Your task to perform on an android device: toggle improve location accuracy Image 0: 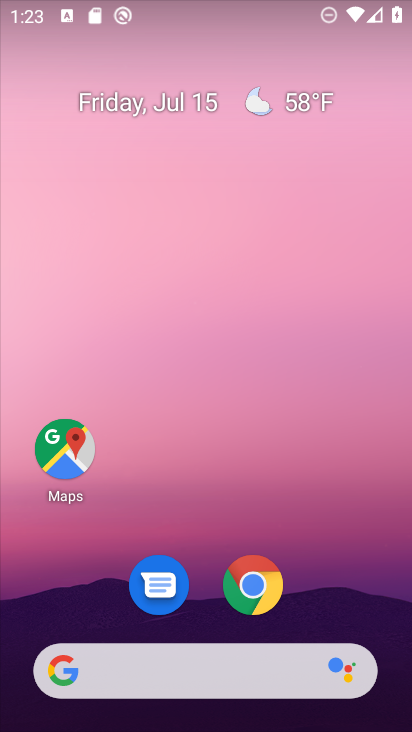
Step 0: drag from (347, 553) to (366, 72)
Your task to perform on an android device: toggle improve location accuracy Image 1: 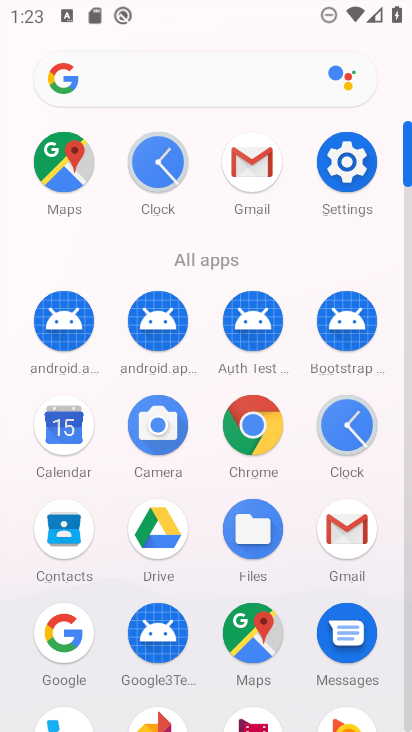
Step 1: click (347, 160)
Your task to perform on an android device: toggle improve location accuracy Image 2: 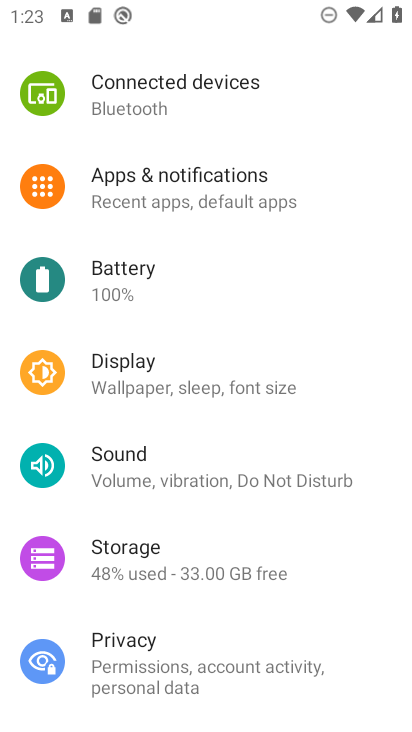
Step 2: drag from (240, 299) to (311, 638)
Your task to perform on an android device: toggle improve location accuracy Image 3: 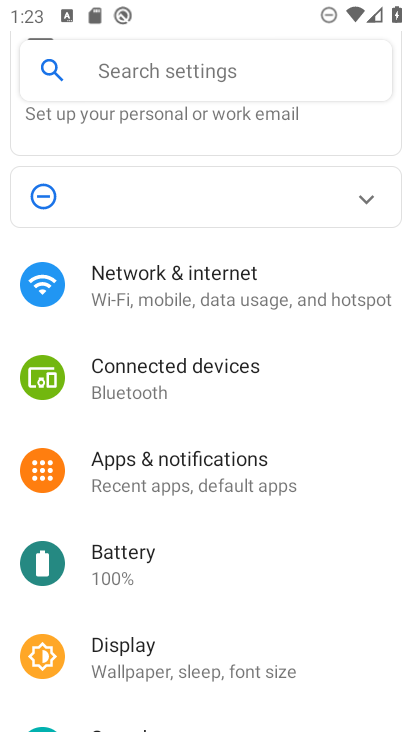
Step 3: drag from (289, 606) to (283, 71)
Your task to perform on an android device: toggle improve location accuracy Image 4: 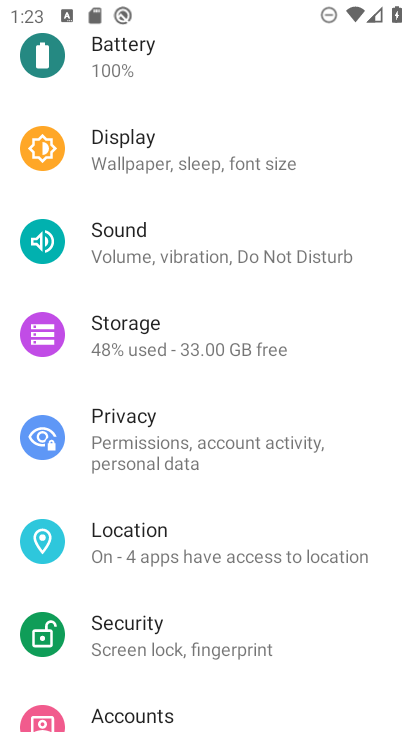
Step 4: click (199, 556)
Your task to perform on an android device: toggle improve location accuracy Image 5: 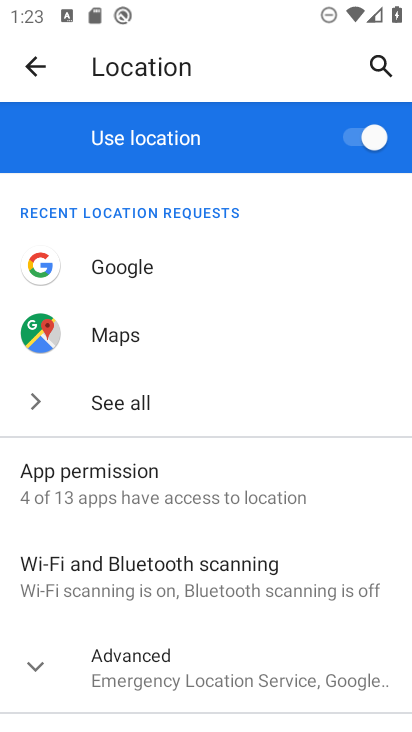
Step 5: drag from (285, 565) to (296, 330)
Your task to perform on an android device: toggle improve location accuracy Image 6: 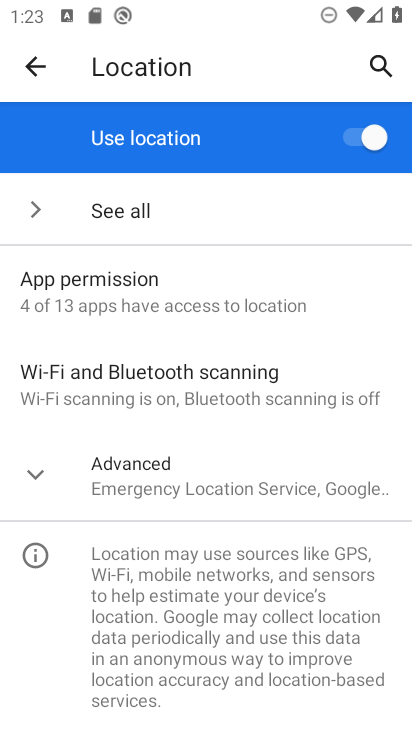
Step 6: click (37, 470)
Your task to perform on an android device: toggle improve location accuracy Image 7: 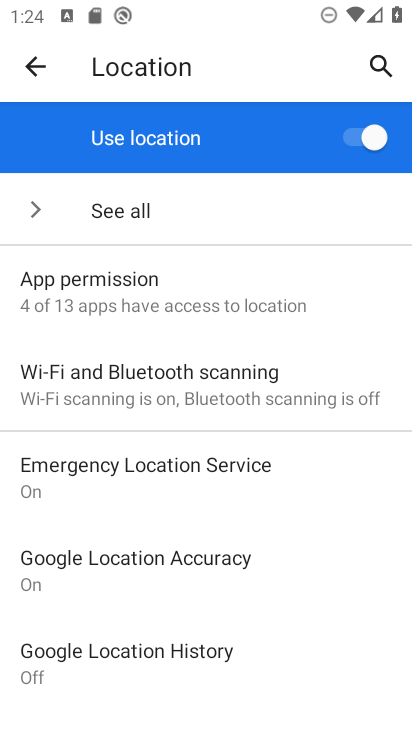
Step 7: click (219, 576)
Your task to perform on an android device: toggle improve location accuracy Image 8: 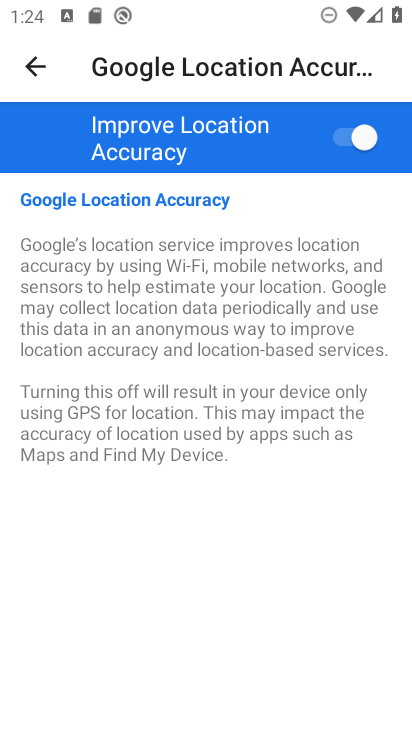
Step 8: click (356, 132)
Your task to perform on an android device: toggle improve location accuracy Image 9: 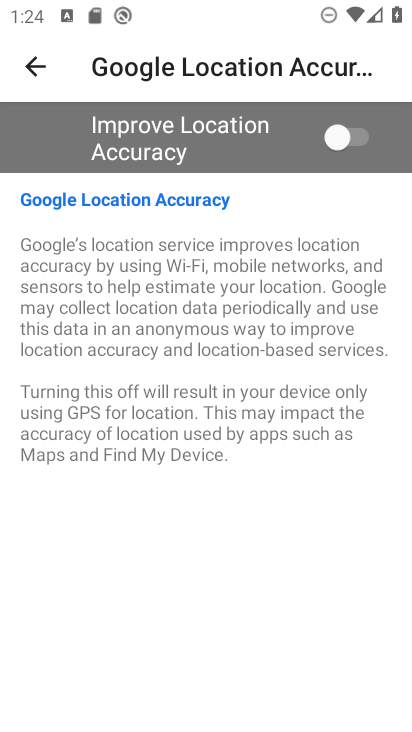
Step 9: task complete